Your task to perform on an android device: Open the map Image 0: 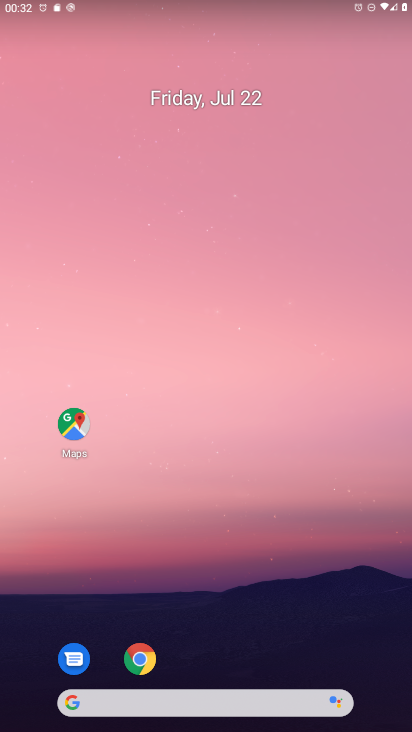
Step 0: click (73, 422)
Your task to perform on an android device: Open the map Image 1: 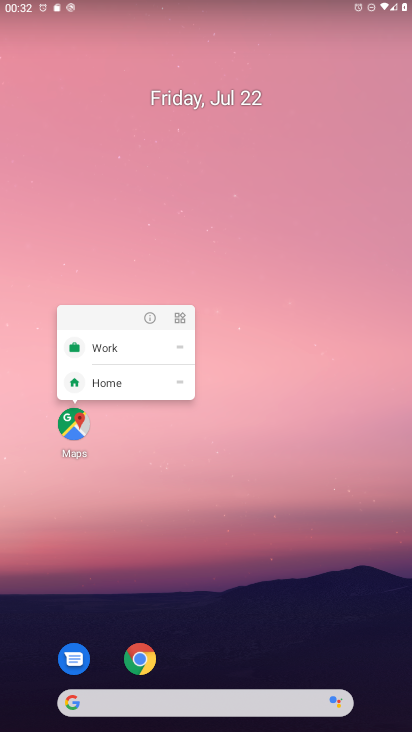
Step 1: click (73, 422)
Your task to perform on an android device: Open the map Image 2: 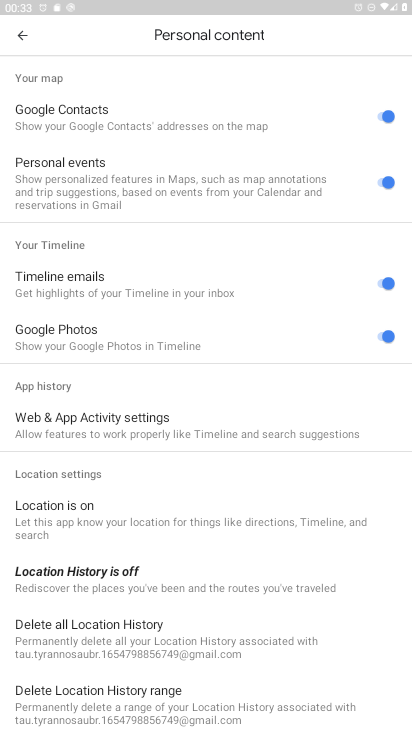
Step 2: task complete